Your task to perform on an android device: open app "Messages" Image 0: 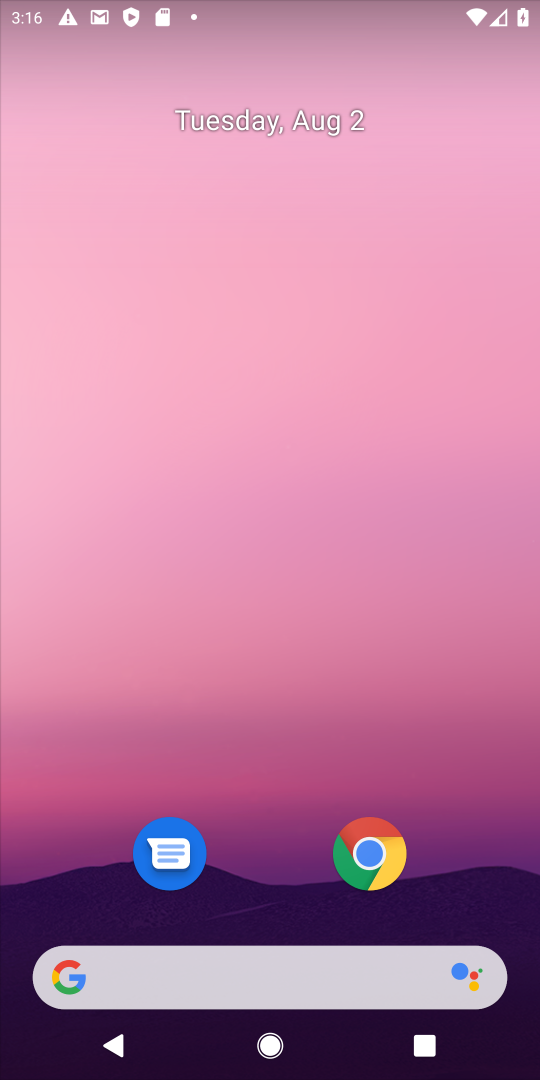
Step 0: click (162, 859)
Your task to perform on an android device: open app "Messages" Image 1: 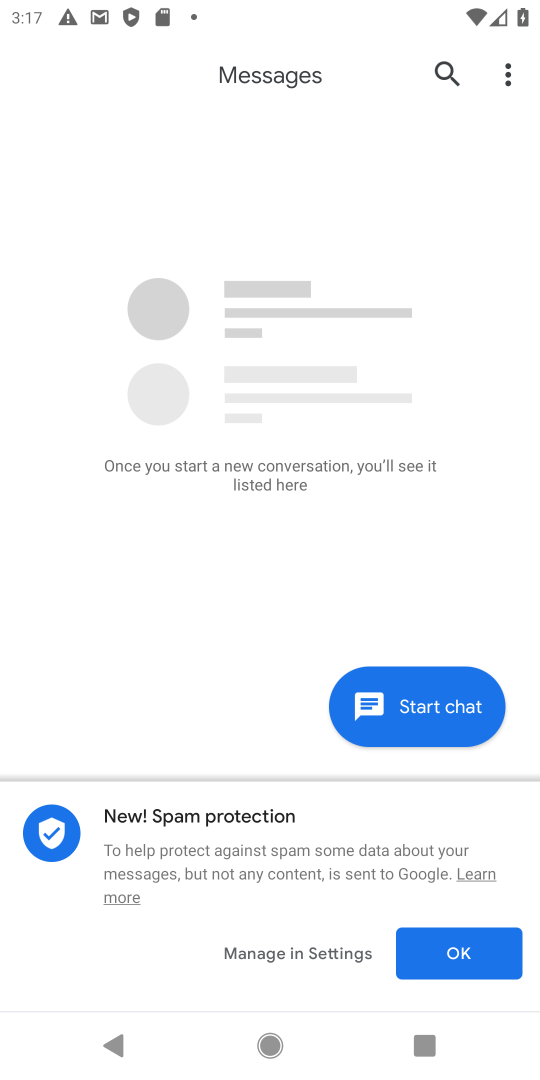
Step 1: task complete